Your task to perform on an android device: See recent photos Image 0: 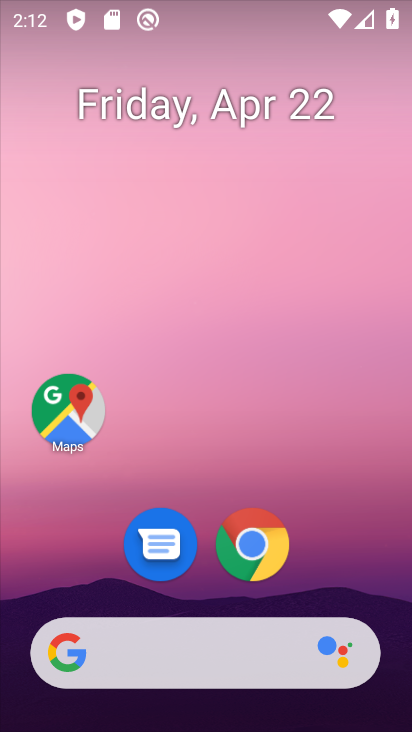
Step 0: drag from (171, 567) to (267, 79)
Your task to perform on an android device: See recent photos Image 1: 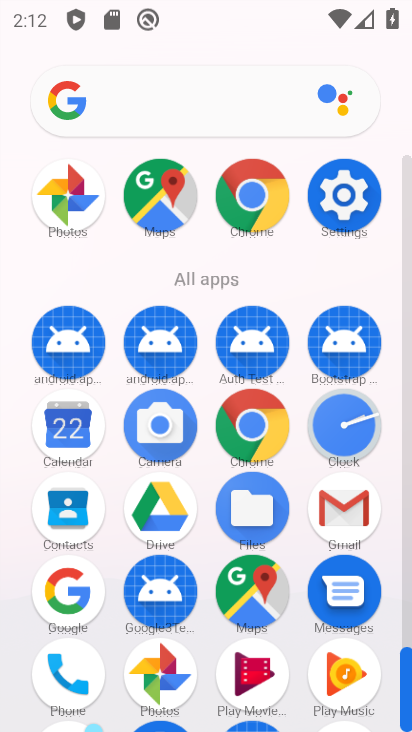
Step 1: click (69, 203)
Your task to perform on an android device: See recent photos Image 2: 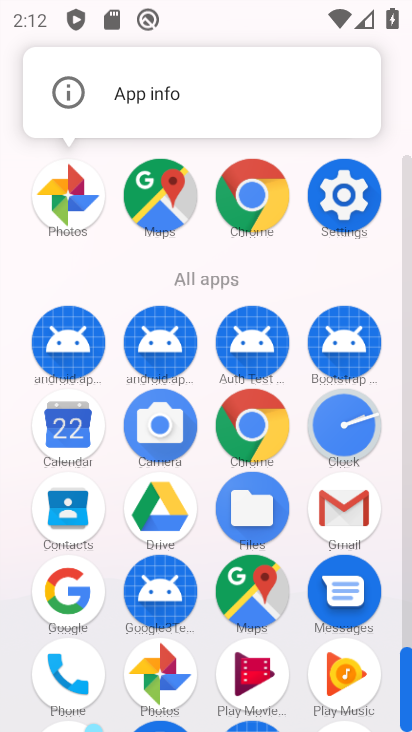
Step 2: click (69, 213)
Your task to perform on an android device: See recent photos Image 3: 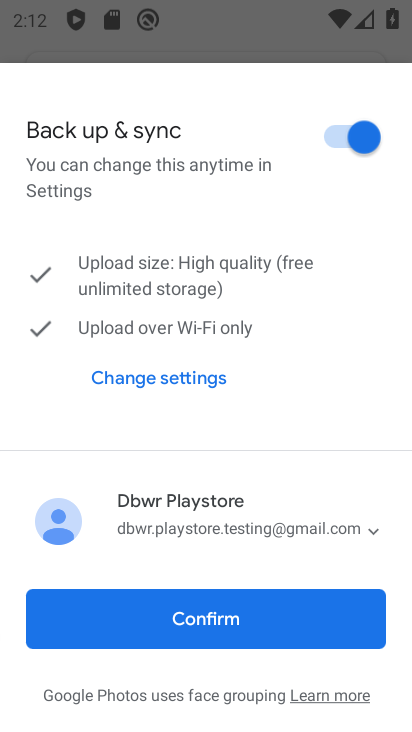
Step 3: click (219, 624)
Your task to perform on an android device: See recent photos Image 4: 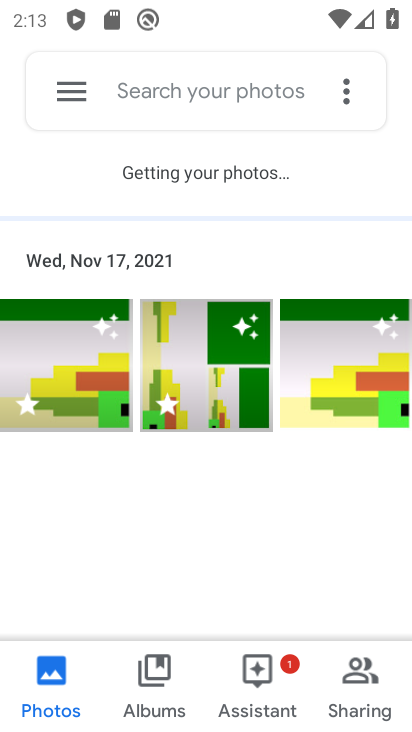
Step 4: task complete